Your task to perform on an android device: turn on the 12-hour format for clock Image 0: 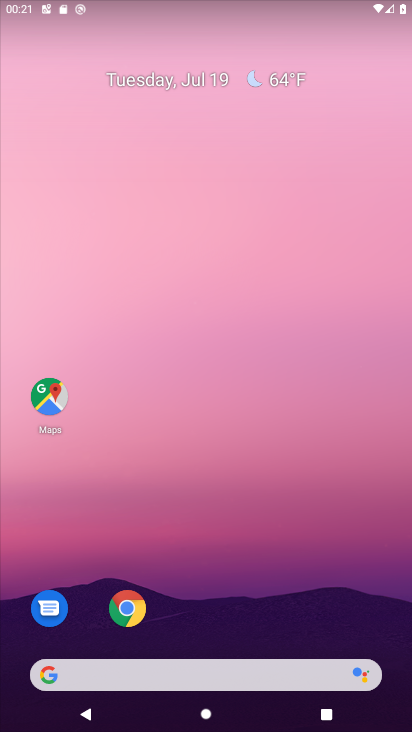
Step 0: drag from (264, 590) to (255, 44)
Your task to perform on an android device: turn on the 12-hour format for clock Image 1: 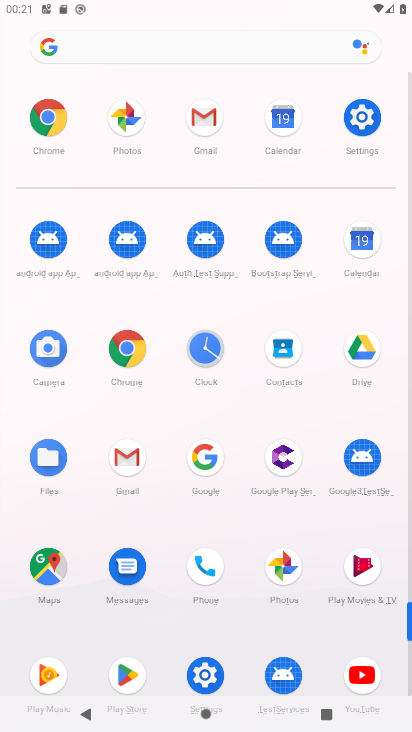
Step 1: click (215, 362)
Your task to perform on an android device: turn on the 12-hour format for clock Image 2: 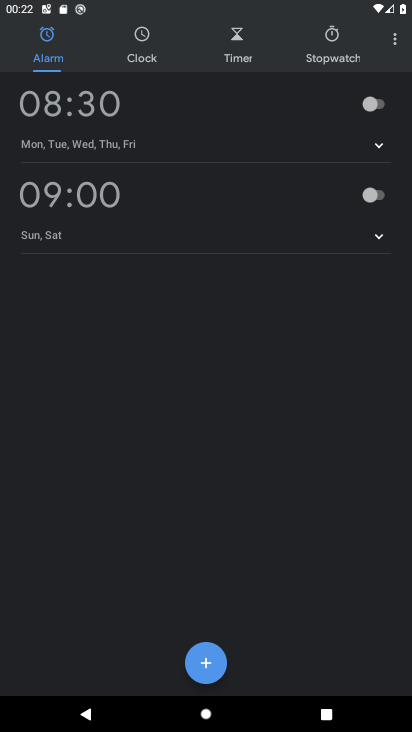
Step 2: click (397, 44)
Your task to perform on an android device: turn on the 12-hour format for clock Image 3: 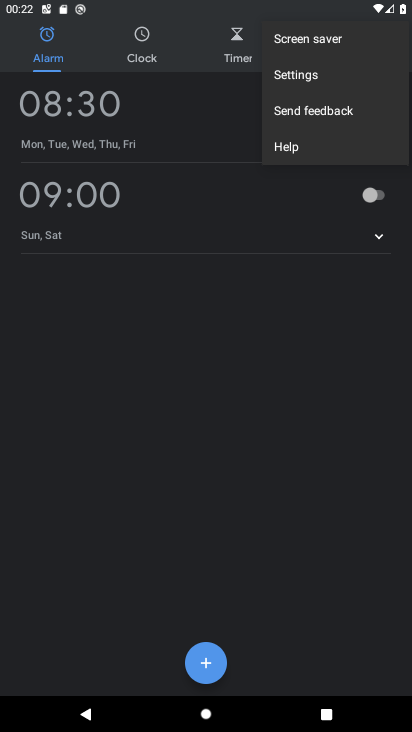
Step 3: click (276, 72)
Your task to perform on an android device: turn on the 12-hour format for clock Image 4: 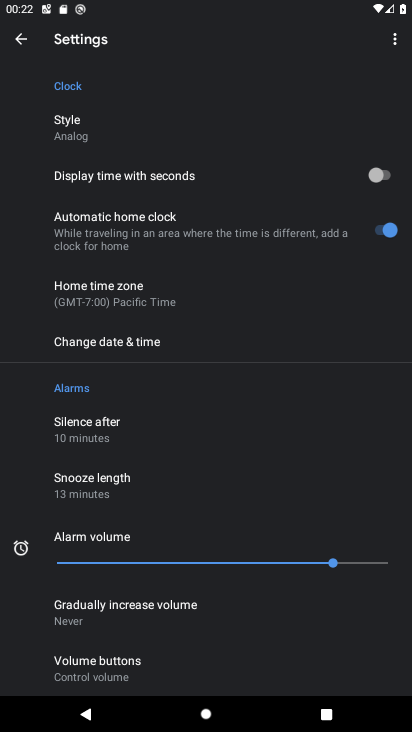
Step 4: click (176, 349)
Your task to perform on an android device: turn on the 12-hour format for clock Image 5: 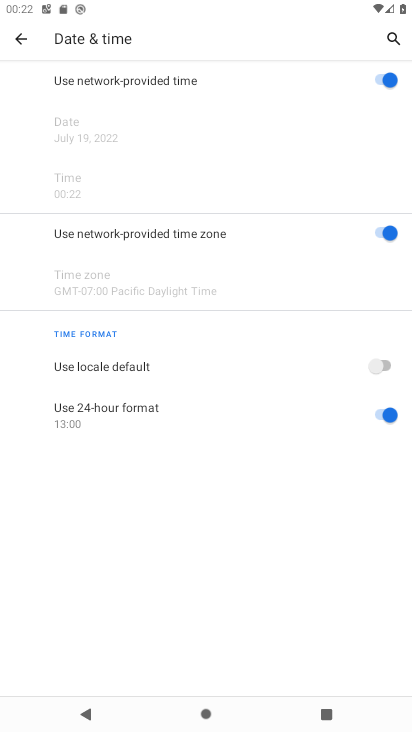
Step 5: click (385, 358)
Your task to perform on an android device: turn on the 12-hour format for clock Image 6: 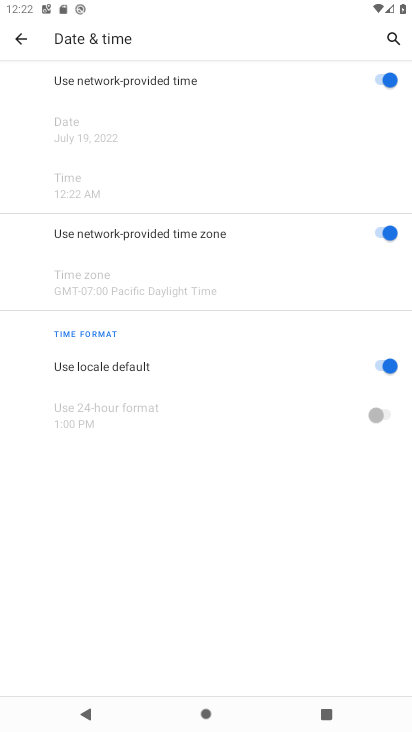
Step 6: task complete